Your task to perform on an android device: Open the Play Movies app and select the watchlist tab. Image 0: 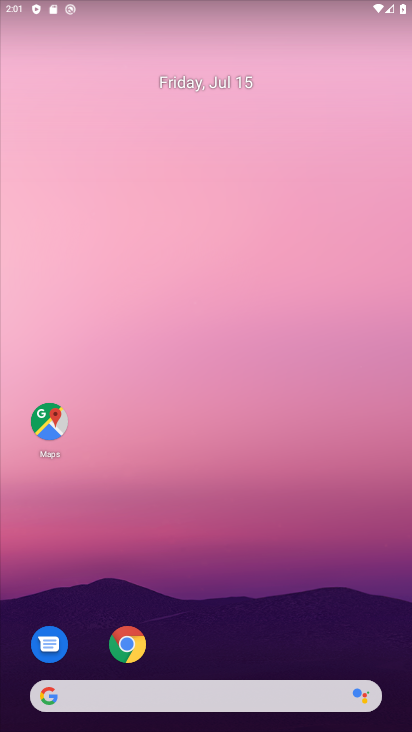
Step 0: drag from (264, 644) to (262, 19)
Your task to perform on an android device: Open the Play Movies app and select the watchlist tab. Image 1: 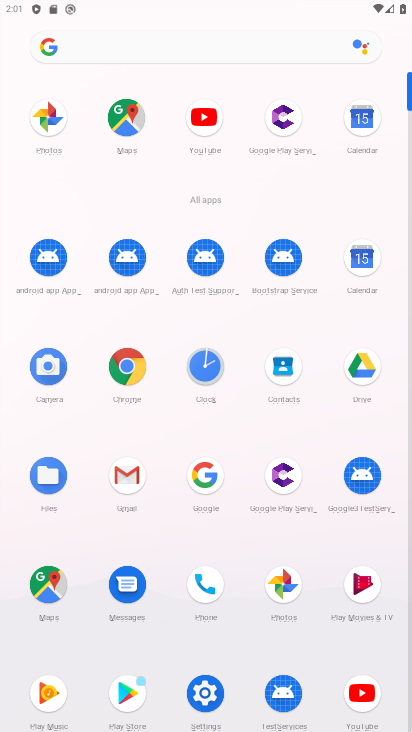
Step 1: click (366, 597)
Your task to perform on an android device: Open the Play Movies app and select the watchlist tab. Image 2: 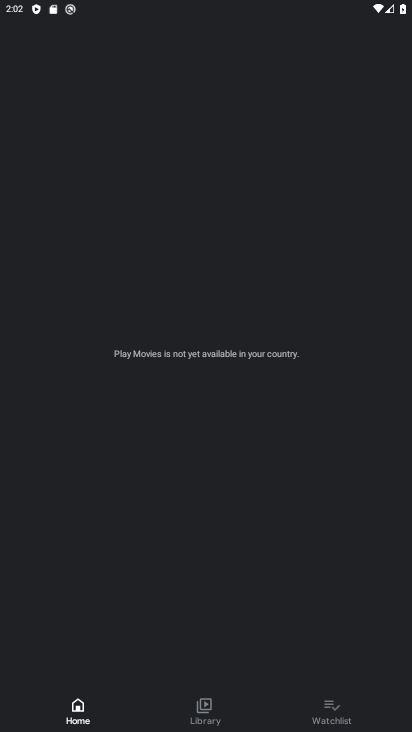
Step 2: click (319, 710)
Your task to perform on an android device: Open the Play Movies app and select the watchlist tab. Image 3: 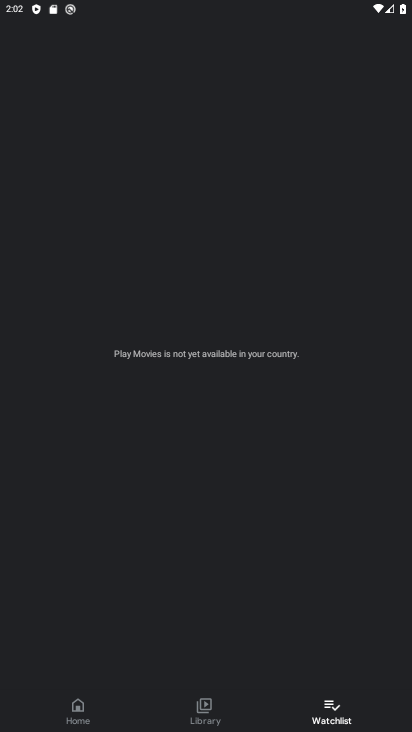
Step 3: task complete